Your task to perform on an android device: change your default location settings in chrome Image 0: 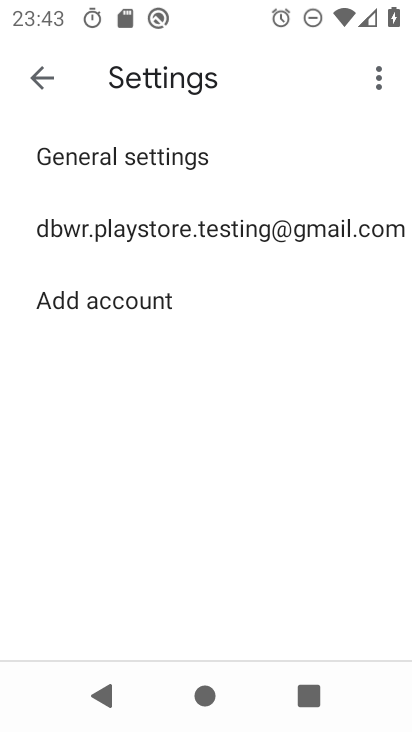
Step 0: press home button
Your task to perform on an android device: change your default location settings in chrome Image 1: 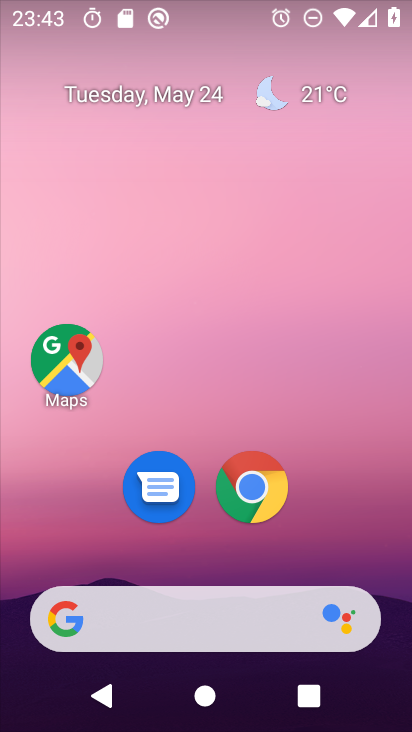
Step 1: click (259, 487)
Your task to perform on an android device: change your default location settings in chrome Image 2: 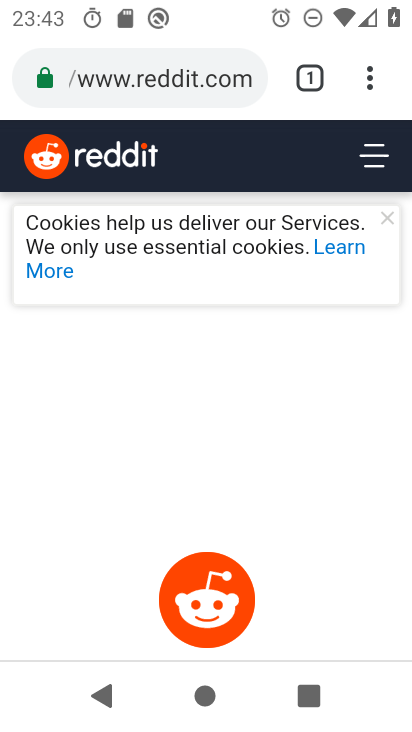
Step 2: click (368, 81)
Your task to perform on an android device: change your default location settings in chrome Image 3: 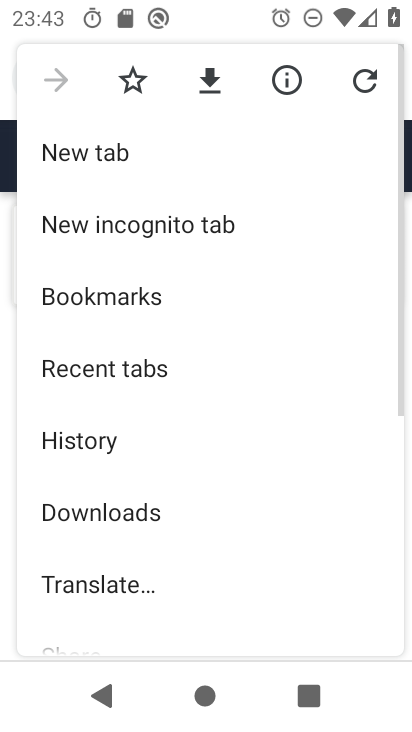
Step 3: drag from (209, 581) to (196, 85)
Your task to perform on an android device: change your default location settings in chrome Image 4: 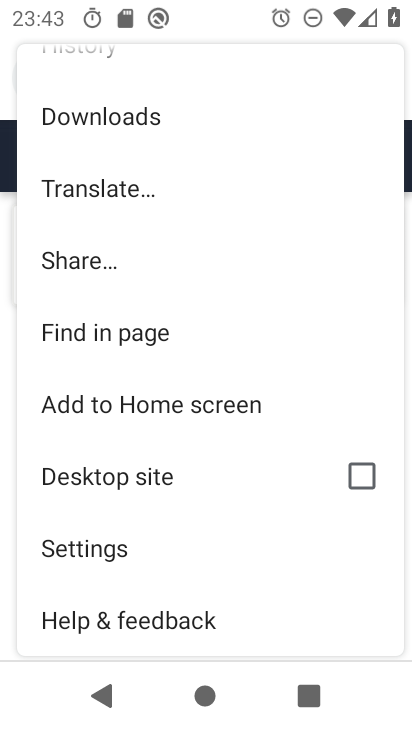
Step 4: click (86, 551)
Your task to perform on an android device: change your default location settings in chrome Image 5: 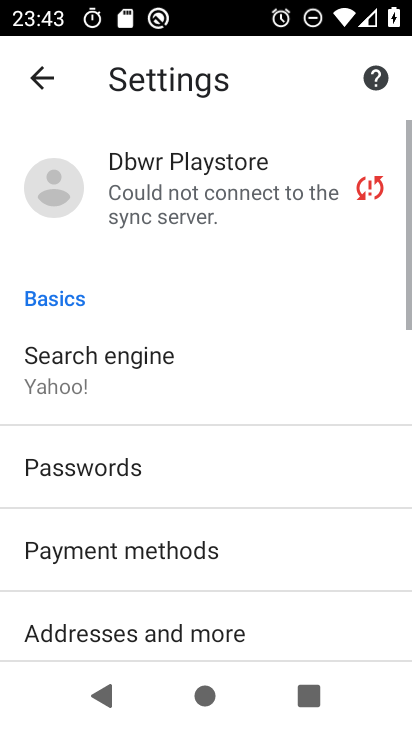
Step 5: drag from (180, 570) to (169, 197)
Your task to perform on an android device: change your default location settings in chrome Image 6: 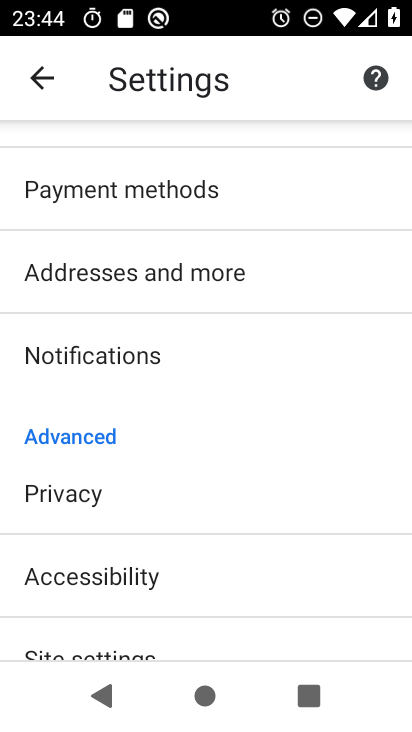
Step 6: drag from (145, 541) to (124, 184)
Your task to perform on an android device: change your default location settings in chrome Image 7: 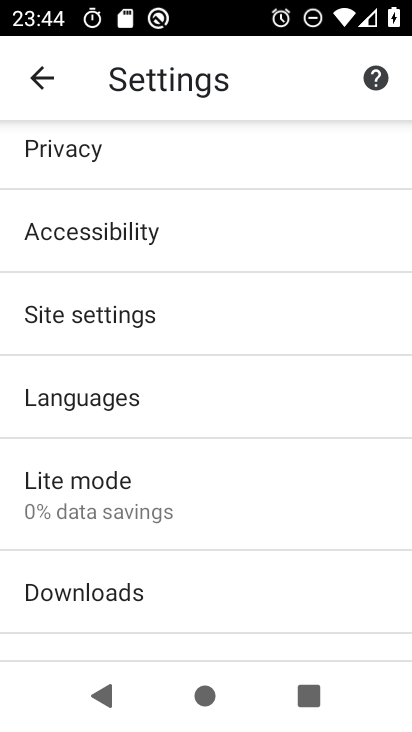
Step 7: click (59, 318)
Your task to perform on an android device: change your default location settings in chrome Image 8: 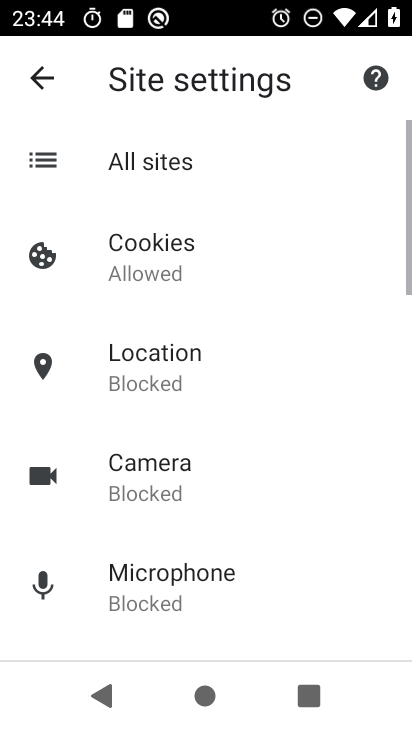
Step 8: click (117, 404)
Your task to perform on an android device: change your default location settings in chrome Image 9: 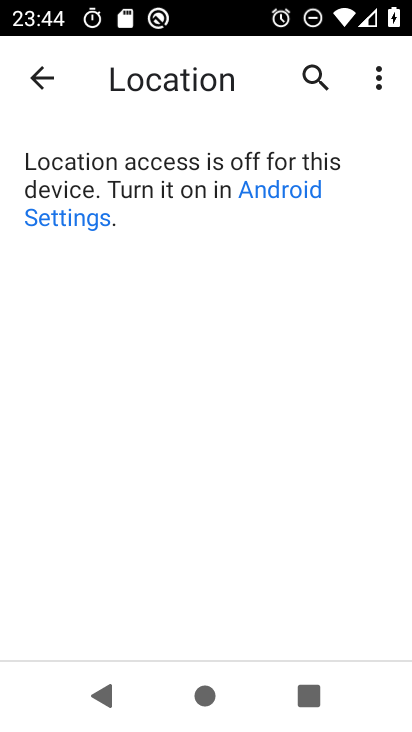
Step 9: click (259, 187)
Your task to perform on an android device: change your default location settings in chrome Image 10: 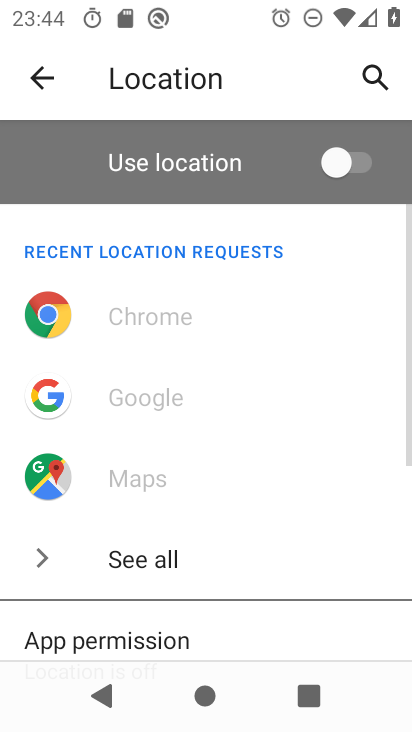
Step 10: click (315, 169)
Your task to perform on an android device: change your default location settings in chrome Image 11: 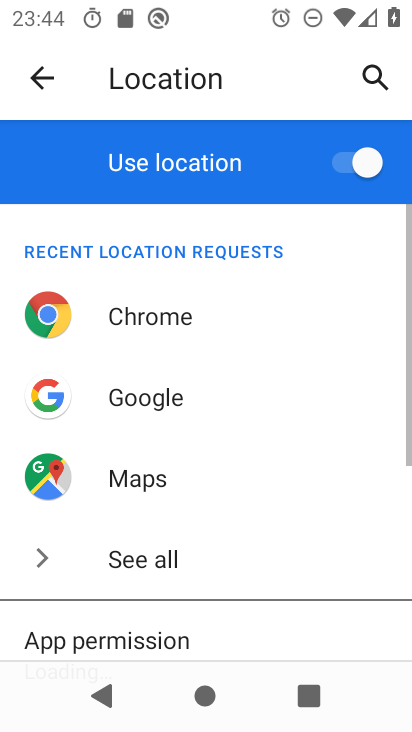
Step 11: task complete